Your task to perform on an android device: What's the weather today? Image 0: 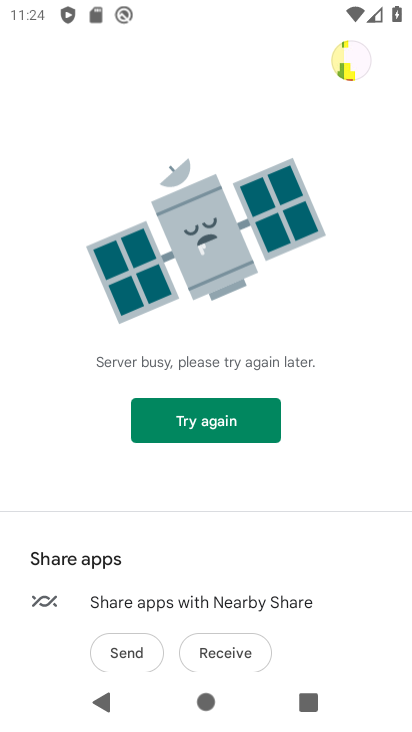
Step 0: click (194, 425)
Your task to perform on an android device: What's the weather today? Image 1: 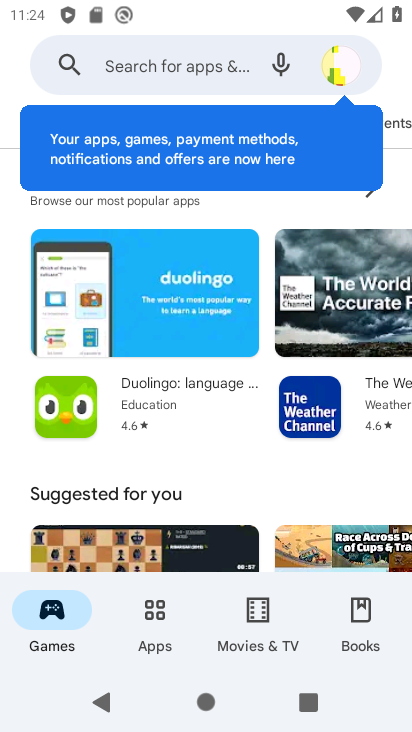
Step 1: press home button
Your task to perform on an android device: What's the weather today? Image 2: 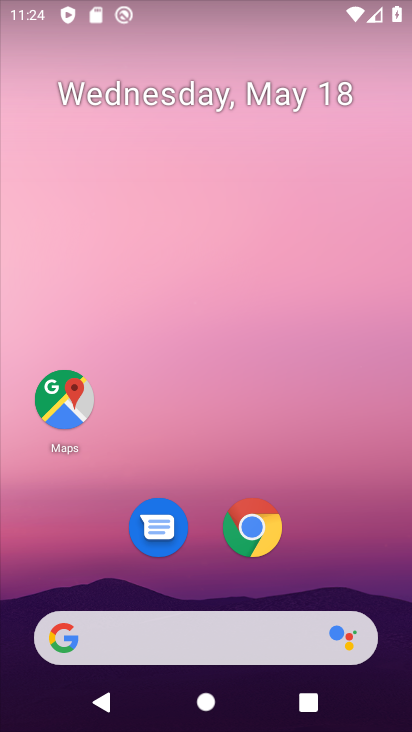
Step 2: click (104, 643)
Your task to perform on an android device: What's the weather today? Image 3: 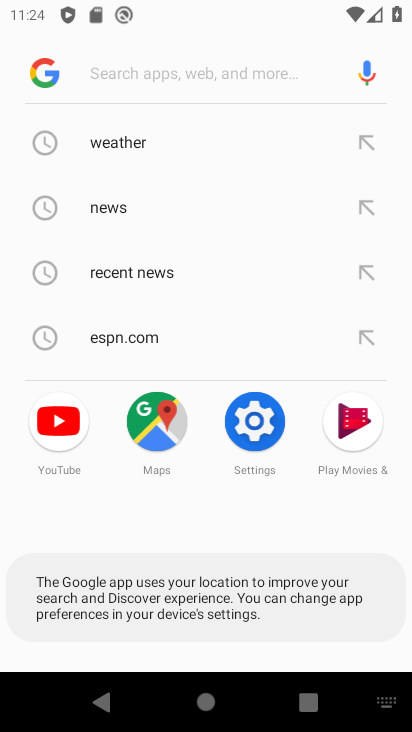
Step 3: click (120, 130)
Your task to perform on an android device: What's the weather today? Image 4: 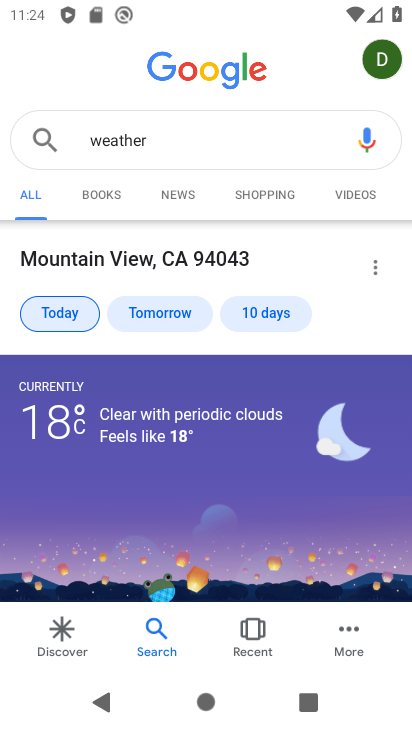
Step 4: task complete